Your task to perform on an android device: refresh tabs in the chrome app Image 0: 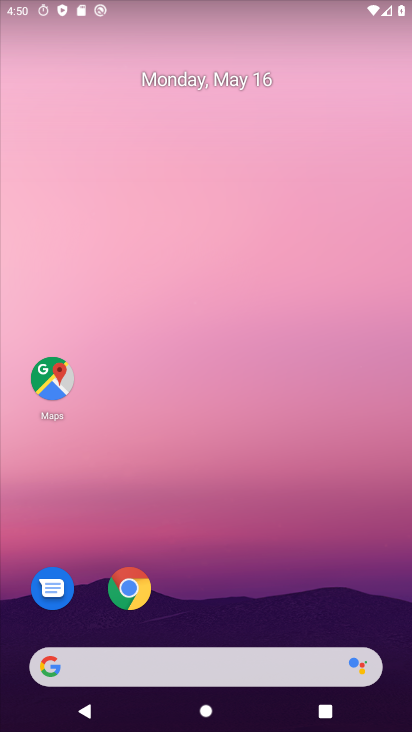
Step 0: drag from (216, 606) to (233, 297)
Your task to perform on an android device: refresh tabs in the chrome app Image 1: 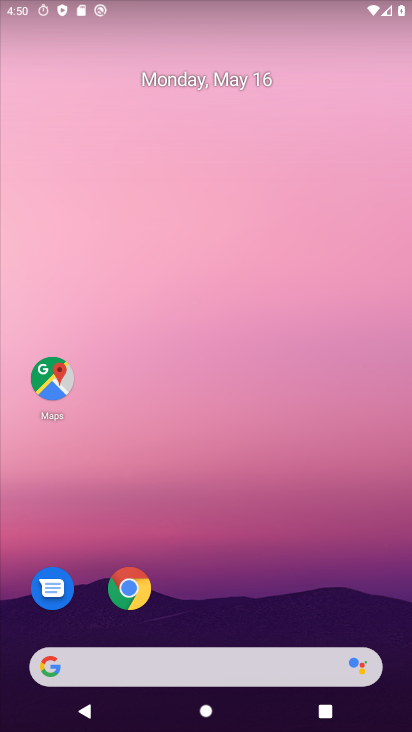
Step 1: drag from (197, 593) to (215, 203)
Your task to perform on an android device: refresh tabs in the chrome app Image 2: 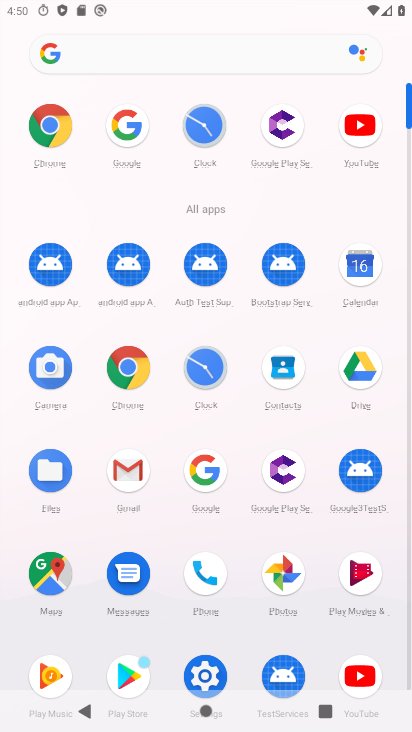
Step 2: click (58, 131)
Your task to perform on an android device: refresh tabs in the chrome app Image 3: 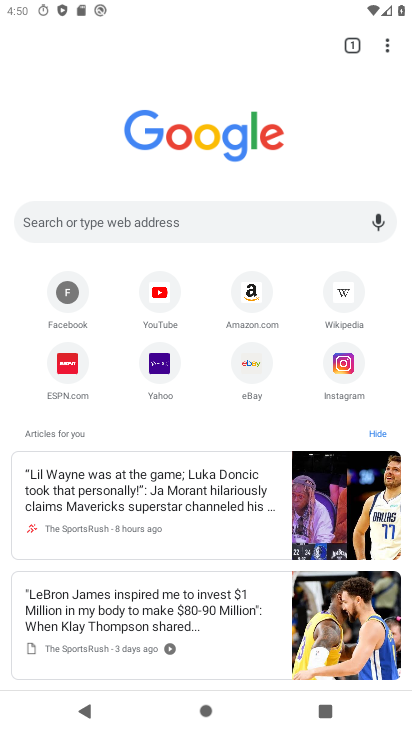
Step 3: click (388, 52)
Your task to perform on an android device: refresh tabs in the chrome app Image 4: 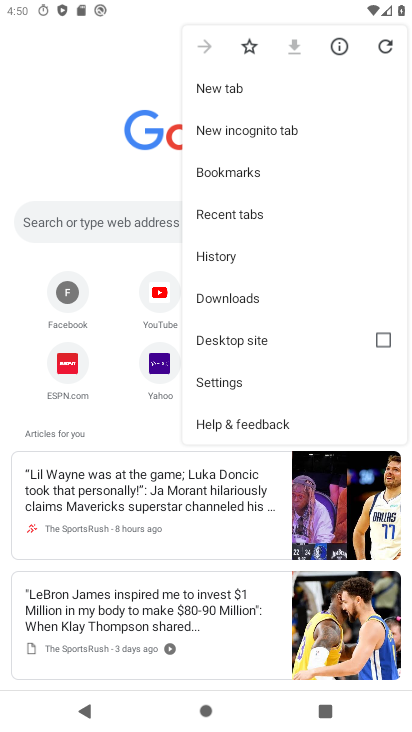
Step 4: click (388, 52)
Your task to perform on an android device: refresh tabs in the chrome app Image 5: 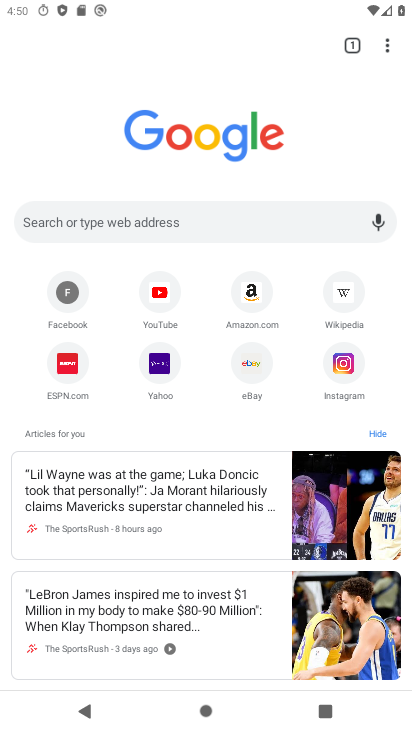
Step 5: task complete